Your task to perform on an android device: turn on sleep mode Image 0: 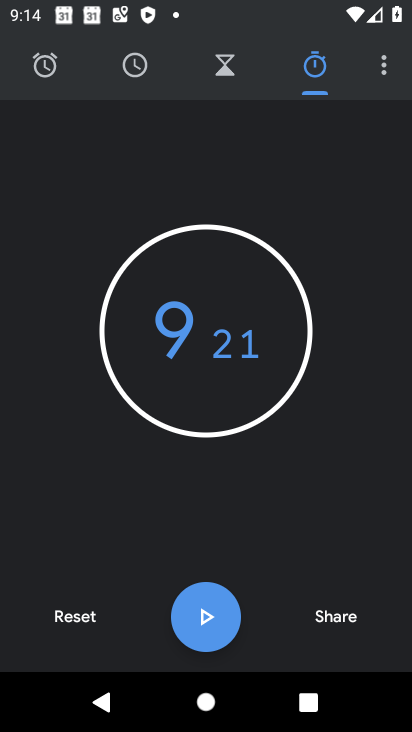
Step 0: press home button
Your task to perform on an android device: turn on sleep mode Image 1: 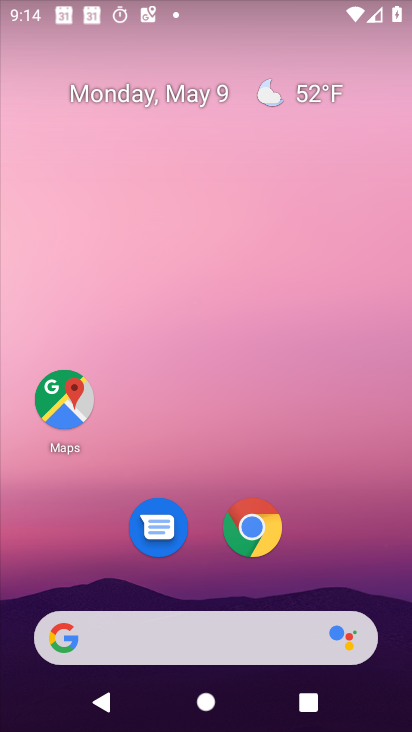
Step 1: drag from (360, 575) to (330, 214)
Your task to perform on an android device: turn on sleep mode Image 2: 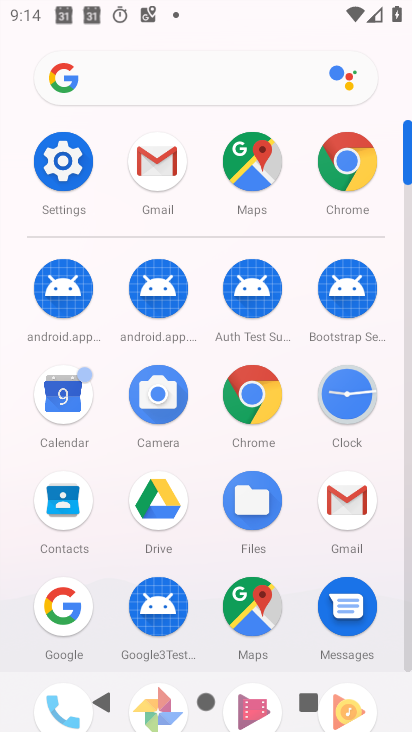
Step 2: click (71, 158)
Your task to perform on an android device: turn on sleep mode Image 3: 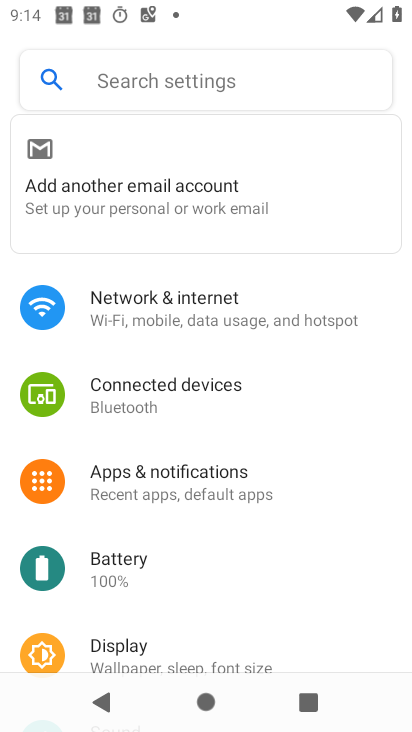
Step 3: click (244, 95)
Your task to perform on an android device: turn on sleep mode Image 4: 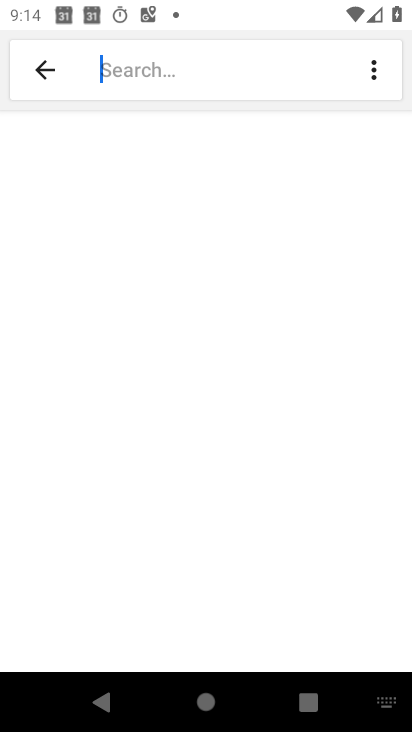
Step 4: type "sleep mode"
Your task to perform on an android device: turn on sleep mode Image 5: 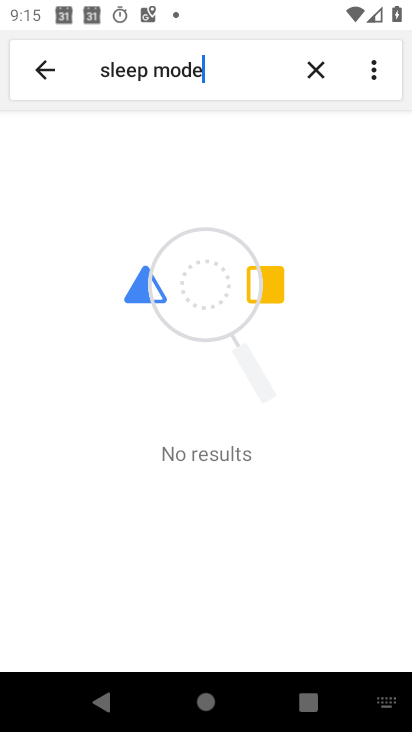
Step 5: task complete